Your task to perform on an android device: turn on wifi Image 0: 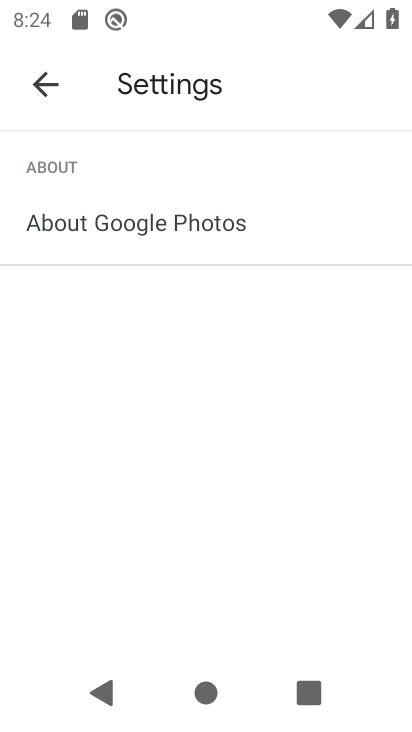
Step 0: press home button
Your task to perform on an android device: turn on wifi Image 1: 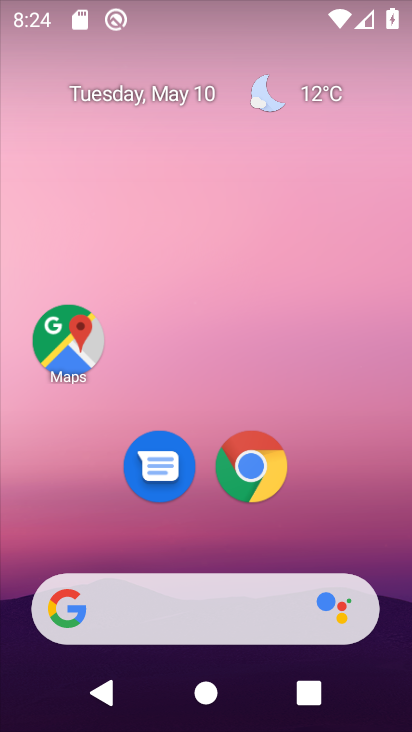
Step 1: drag from (191, 558) to (310, 0)
Your task to perform on an android device: turn on wifi Image 2: 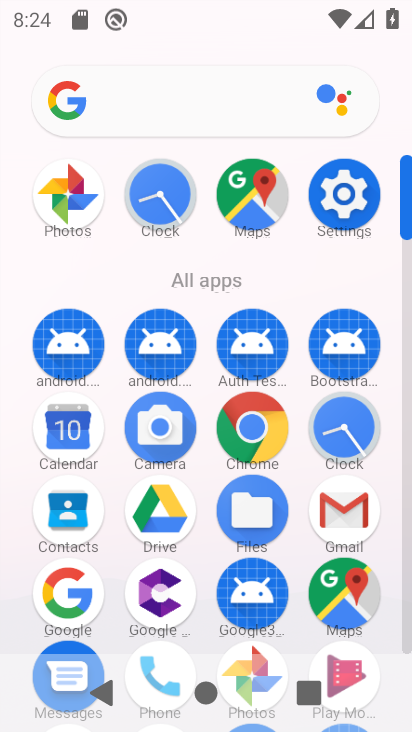
Step 2: click (352, 216)
Your task to perform on an android device: turn on wifi Image 3: 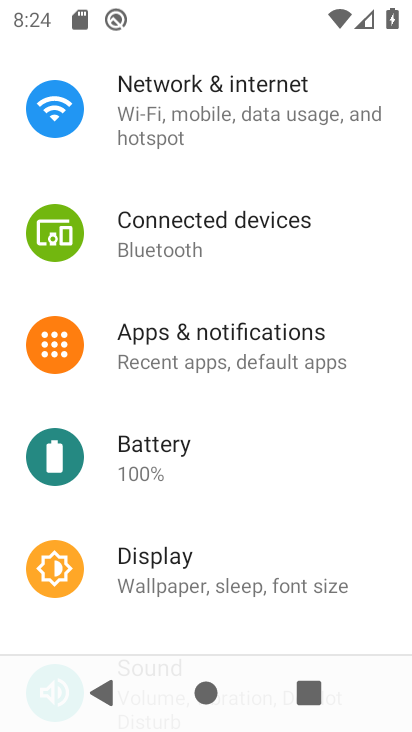
Step 3: drag from (295, 208) to (253, 451)
Your task to perform on an android device: turn on wifi Image 4: 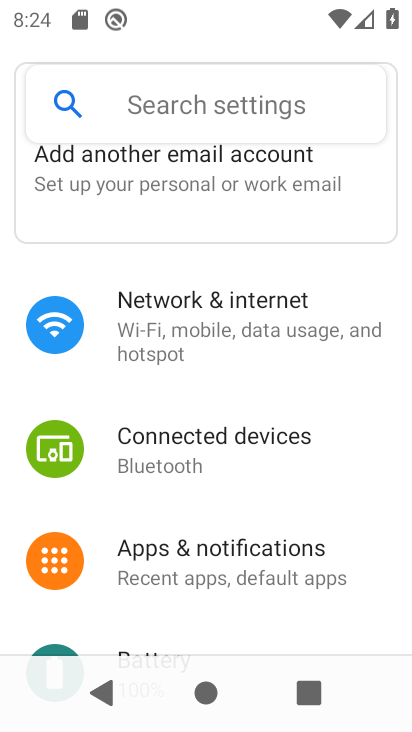
Step 4: click (219, 340)
Your task to perform on an android device: turn on wifi Image 5: 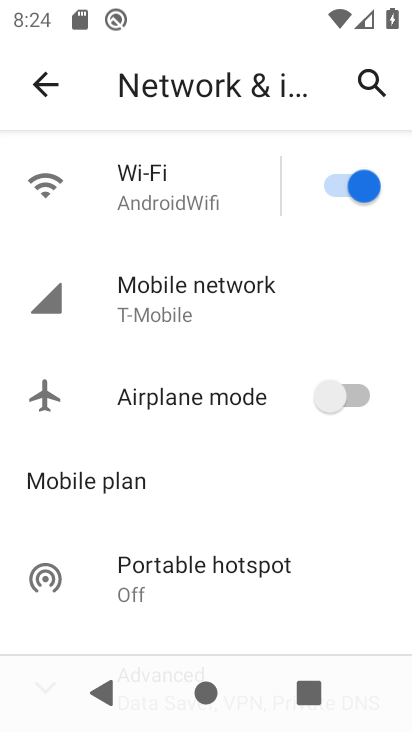
Step 5: task complete